Your task to perform on an android device: turn on the 24-hour format for clock Image 0: 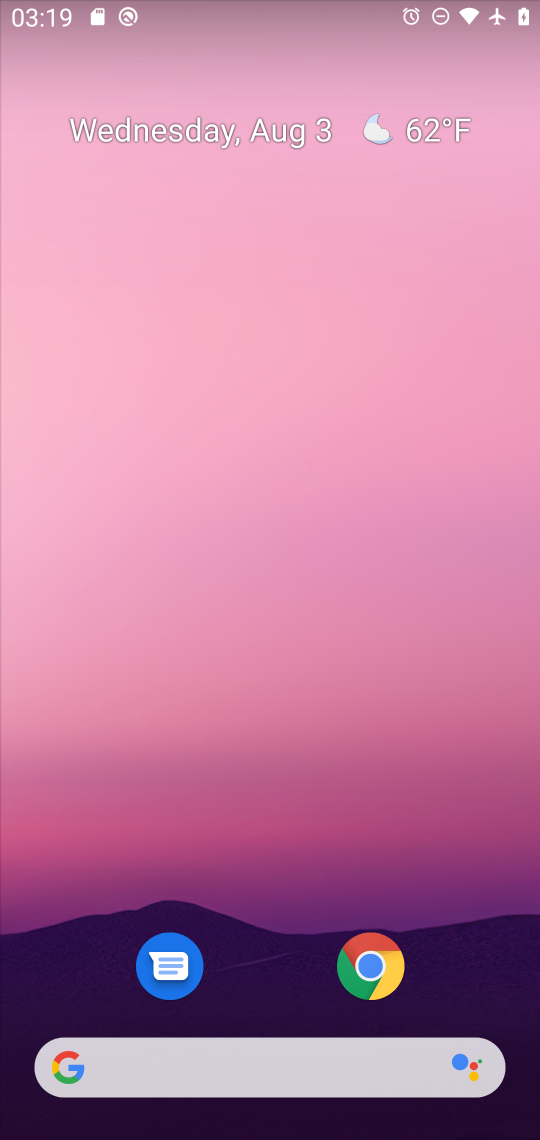
Step 0: drag from (272, 996) to (277, 572)
Your task to perform on an android device: turn on the 24-hour format for clock Image 1: 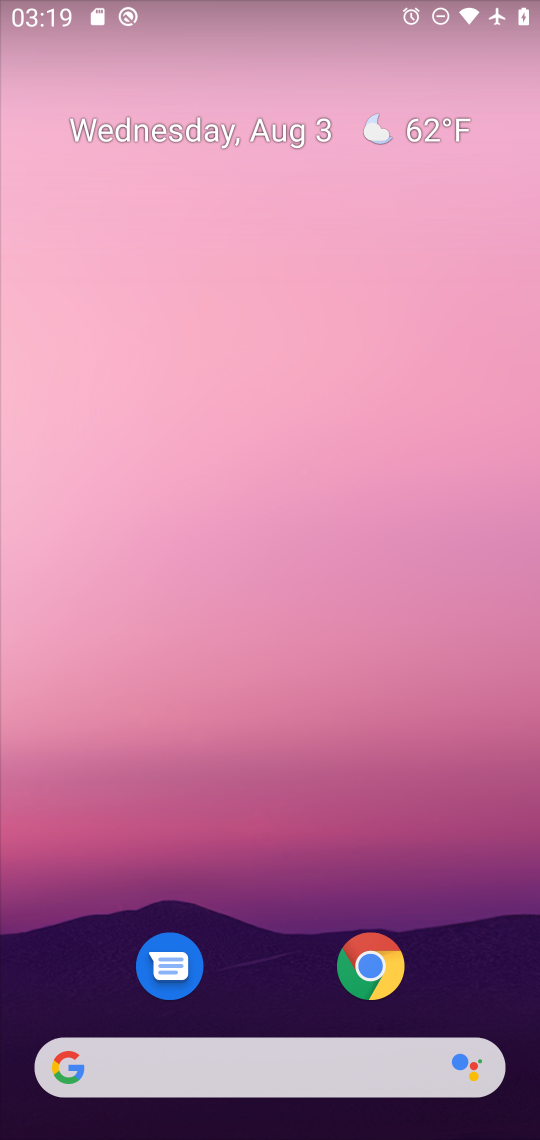
Step 1: drag from (290, 949) to (214, 327)
Your task to perform on an android device: turn on the 24-hour format for clock Image 2: 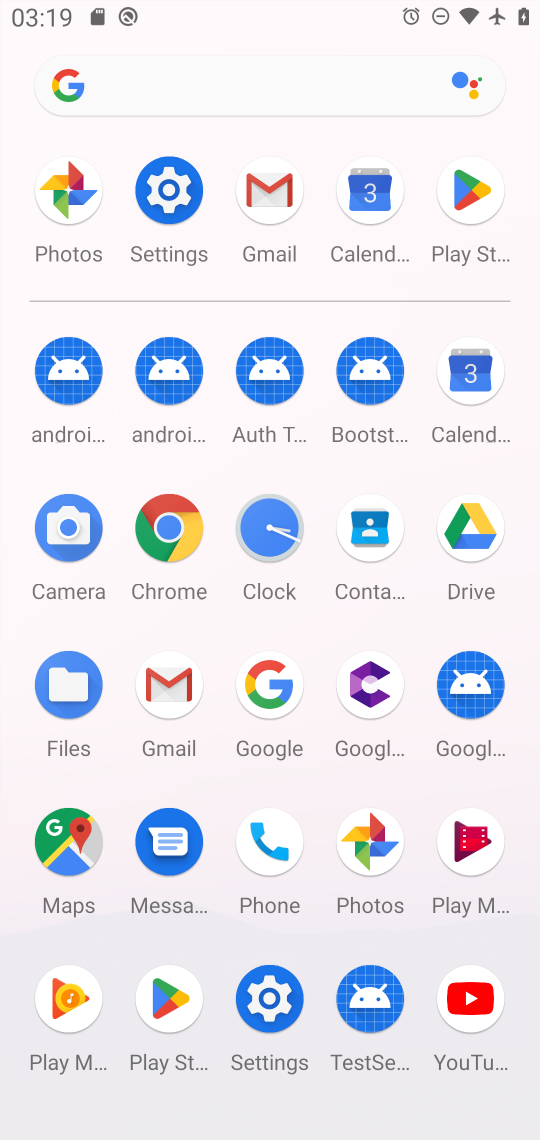
Step 2: click (280, 552)
Your task to perform on an android device: turn on the 24-hour format for clock Image 3: 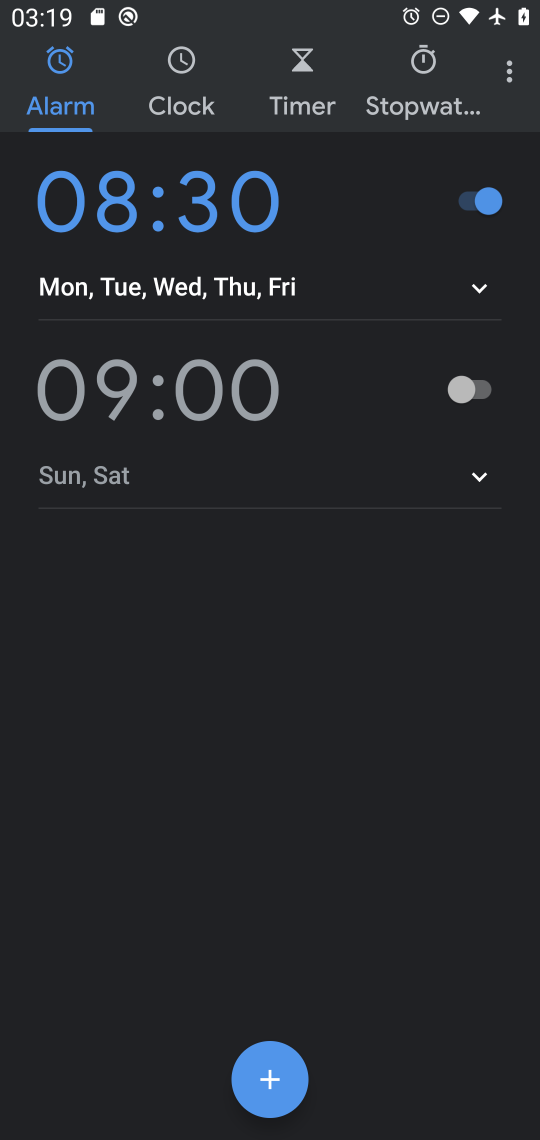
Step 3: click (506, 88)
Your task to perform on an android device: turn on the 24-hour format for clock Image 4: 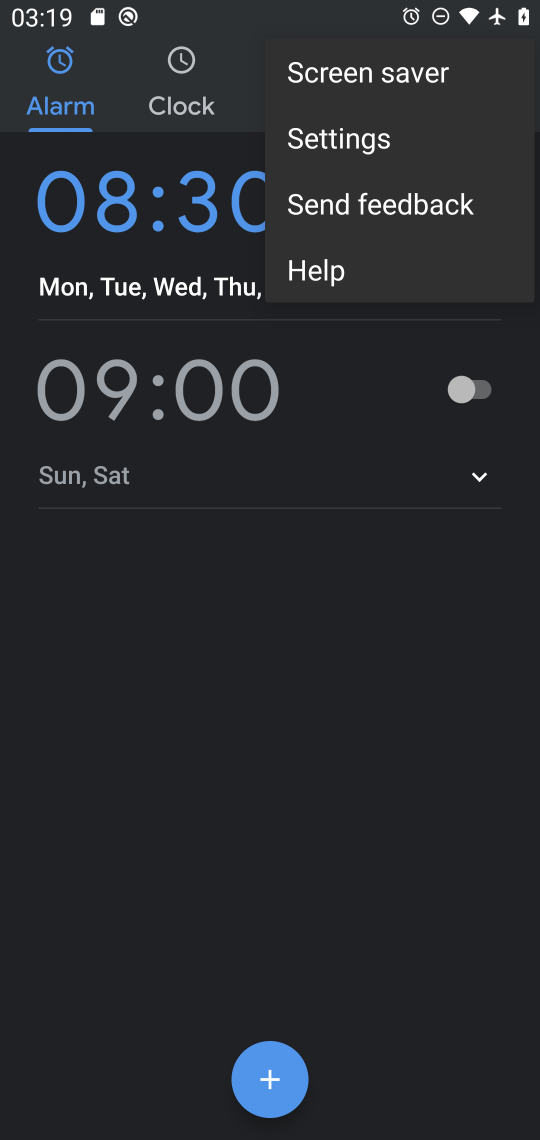
Step 4: click (407, 147)
Your task to perform on an android device: turn on the 24-hour format for clock Image 5: 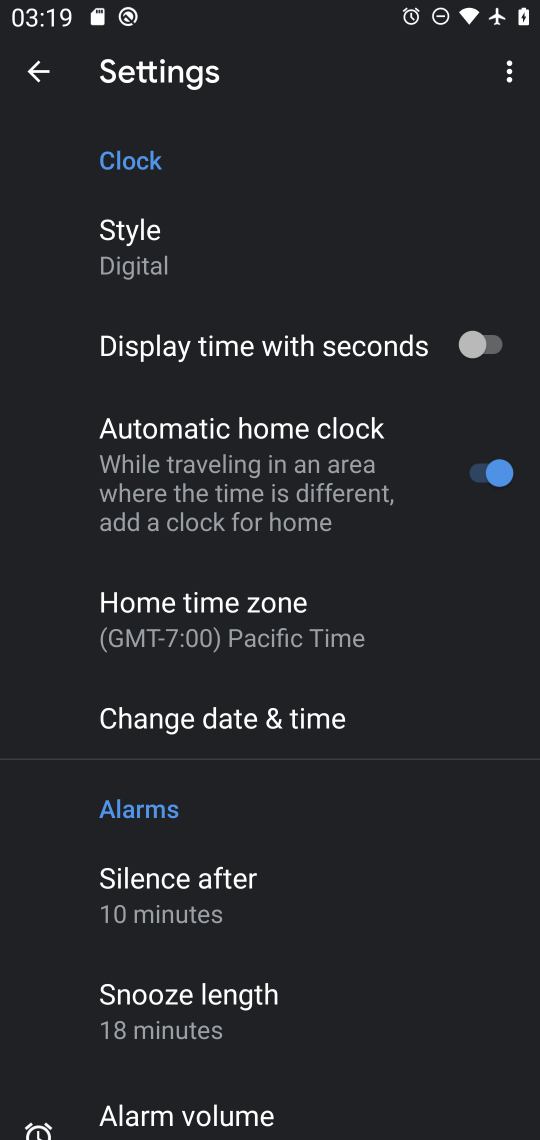
Step 5: click (256, 739)
Your task to perform on an android device: turn on the 24-hour format for clock Image 6: 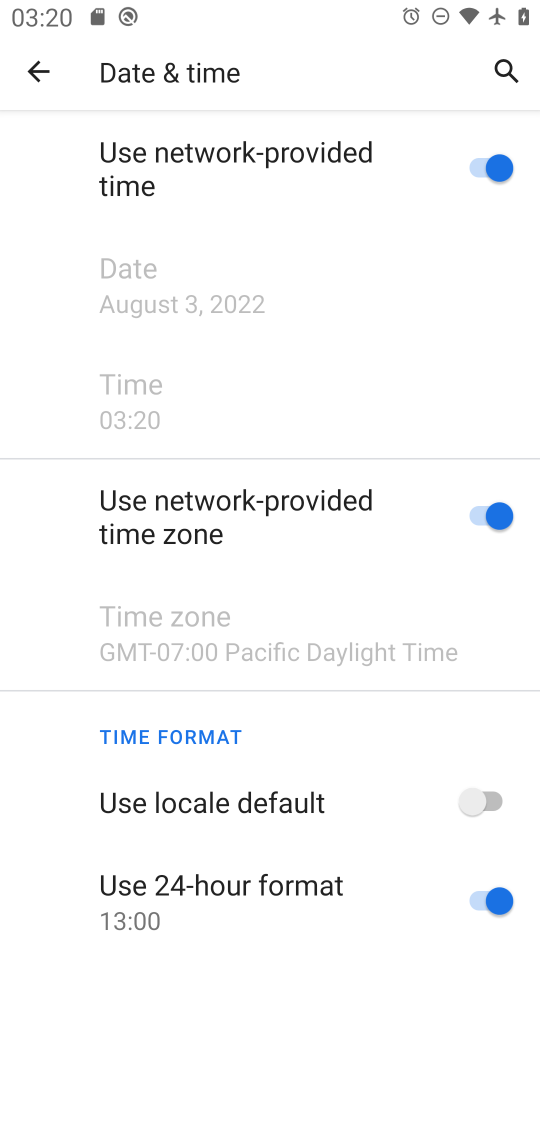
Step 6: task complete